Your task to perform on an android device: delete the emails in spam in the gmail app Image 0: 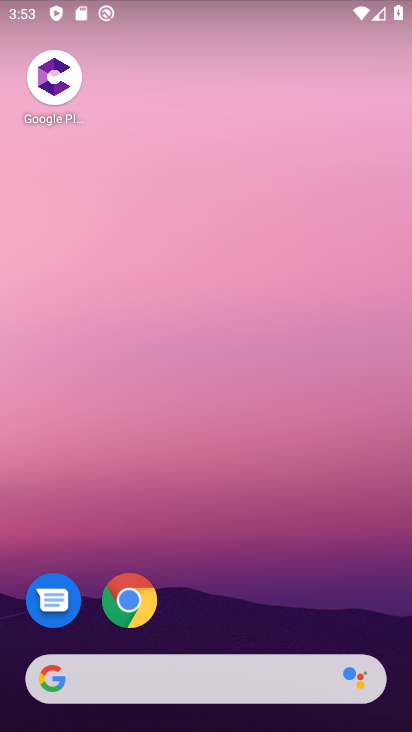
Step 0: drag from (296, 663) to (306, 55)
Your task to perform on an android device: delete the emails in spam in the gmail app Image 1: 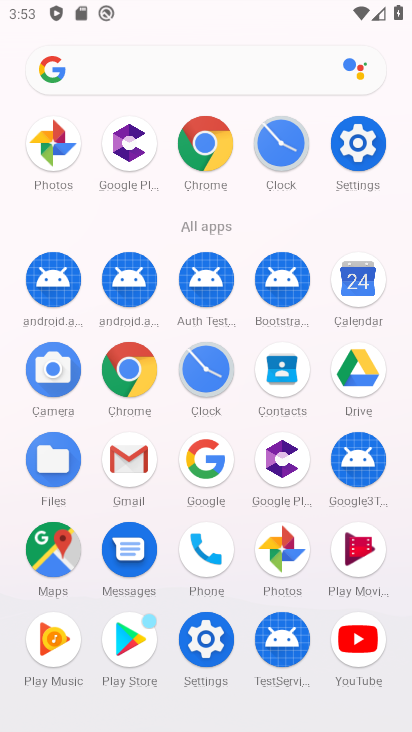
Step 1: click (137, 460)
Your task to perform on an android device: delete the emails in spam in the gmail app Image 2: 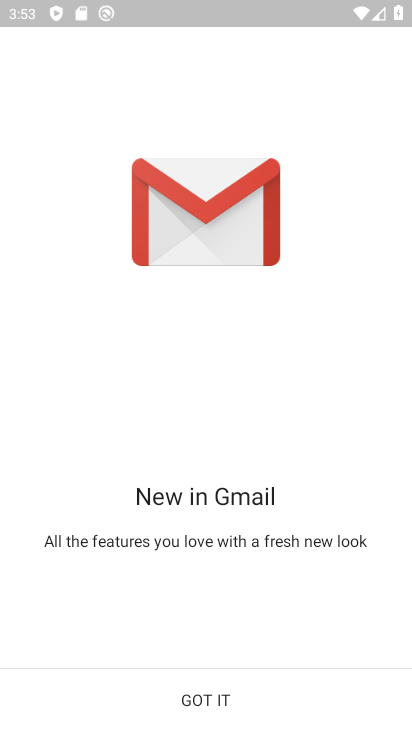
Step 2: click (200, 690)
Your task to perform on an android device: delete the emails in spam in the gmail app Image 3: 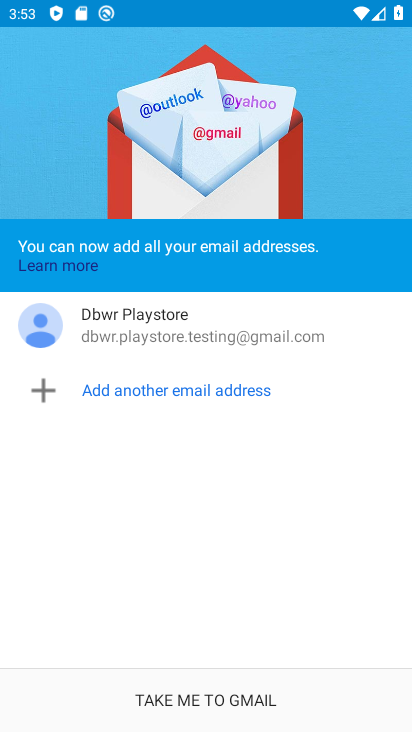
Step 3: click (219, 667)
Your task to perform on an android device: delete the emails in spam in the gmail app Image 4: 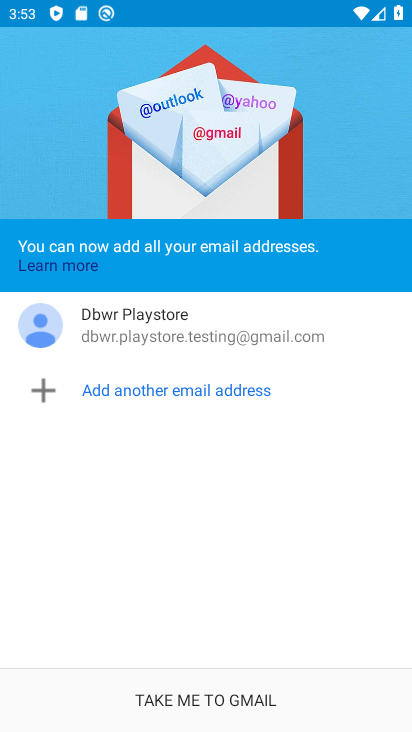
Step 4: click (366, 688)
Your task to perform on an android device: delete the emails in spam in the gmail app Image 5: 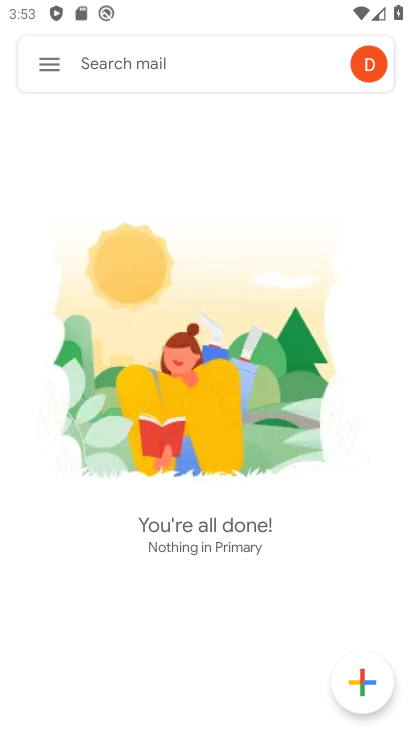
Step 5: click (49, 57)
Your task to perform on an android device: delete the emails in spam in the gmail app Image 6: 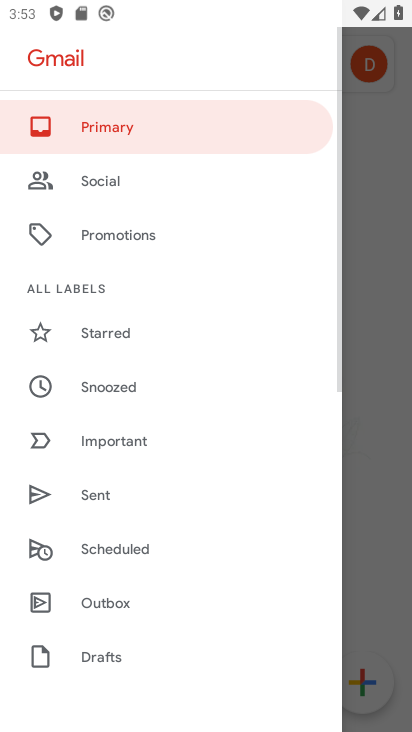
Step 6: drag from (193, 634) to (199, 198)
Your task to perform on an android device: delete the emails in spam in the gmail app Image 7: 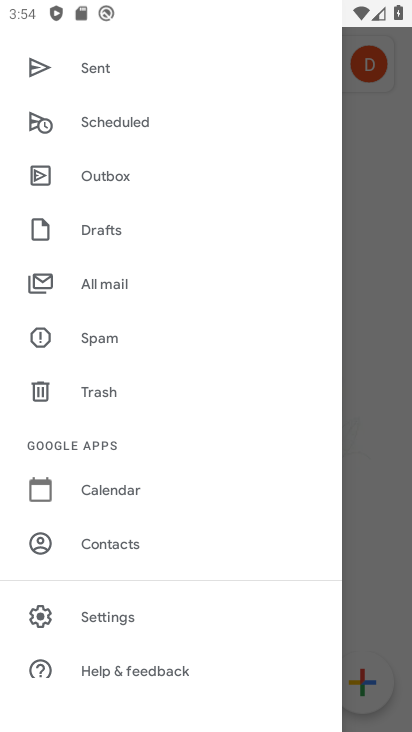
Step 7: click (98, 331)
Your task to perform on an android device: delete the emails in spam in the gmail app Image 8: 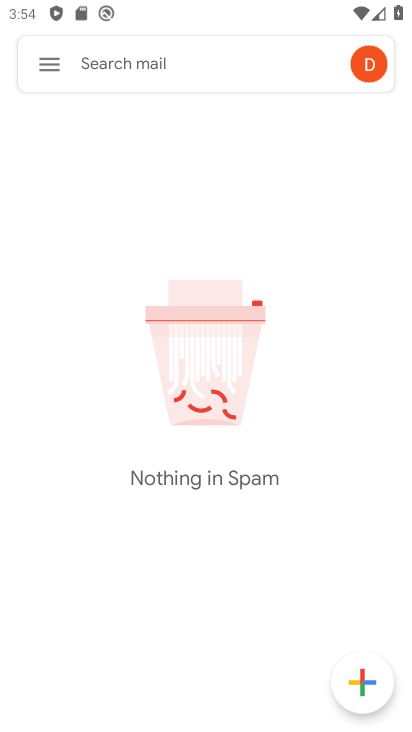
Step 8: task complete